Your task to perform on an android device: change the clock style Image 0: 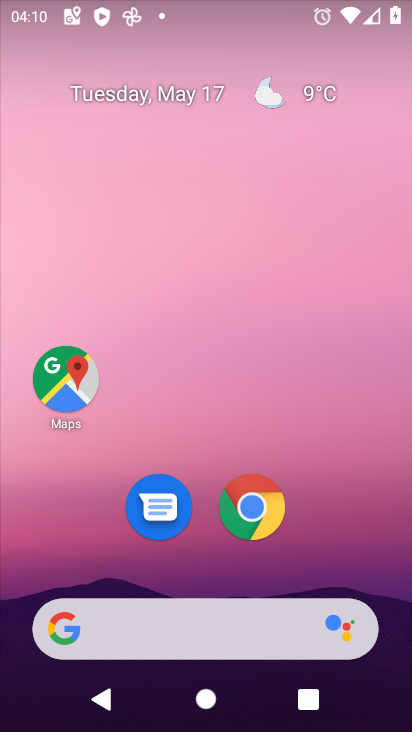
Step 0: drag from (329, 337) to (287, 66)
Your task to perform on an android device: change the clock style Image 1: 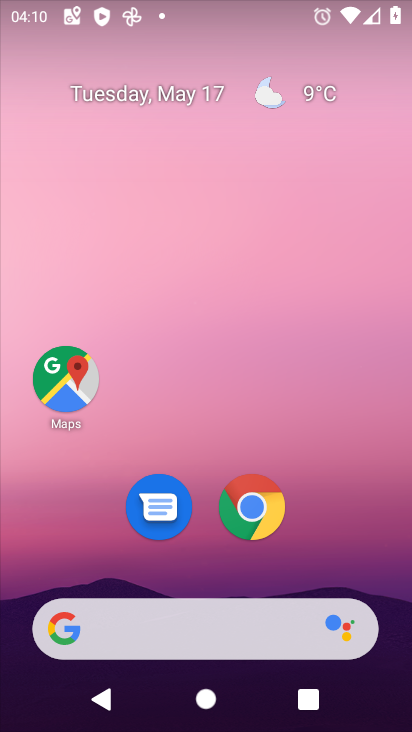
Step 1: drag from (367, 492) to (284, 0)
Your task to perform on an android device: change the clock style Image 2: 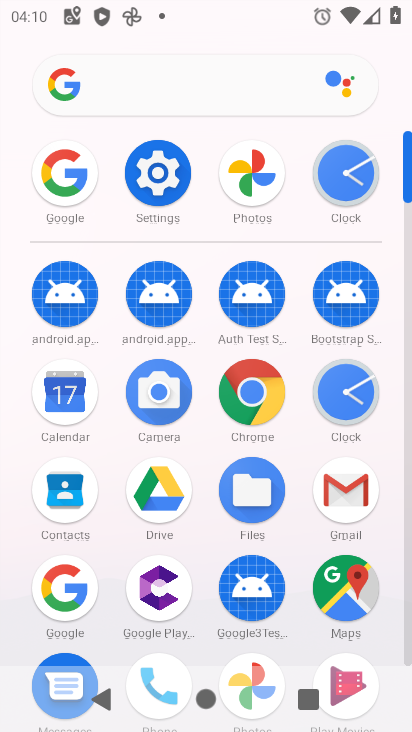
Step 2: click (340, 188)
Your task to perform on an android device: change the clock style Image 3: 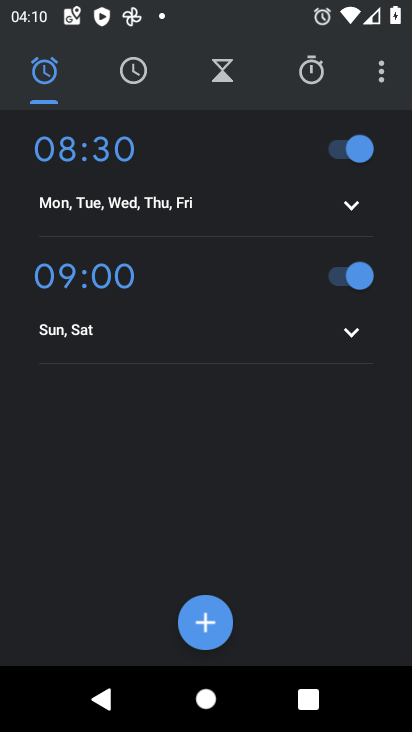
Step 3: click (384, 70)
Your task to perform on an android device: change the clock style Image 4: 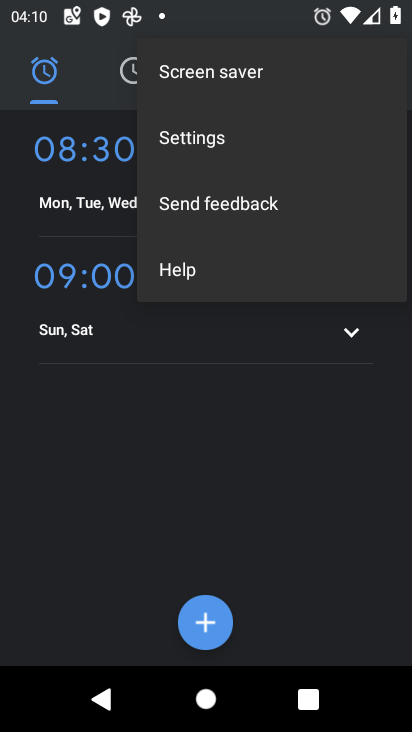
Step 4: click (251, 145)
Your task to perform on an android device: change the clock style Image 5: 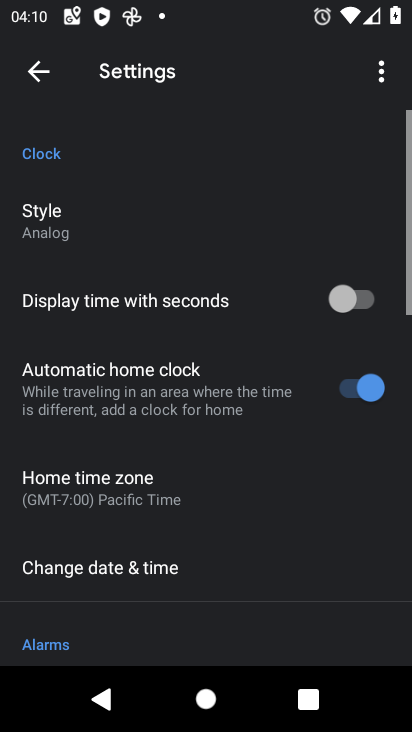
Step 5: click (89, 208)
Your task to perform on an android device: change the clock style Image 6: 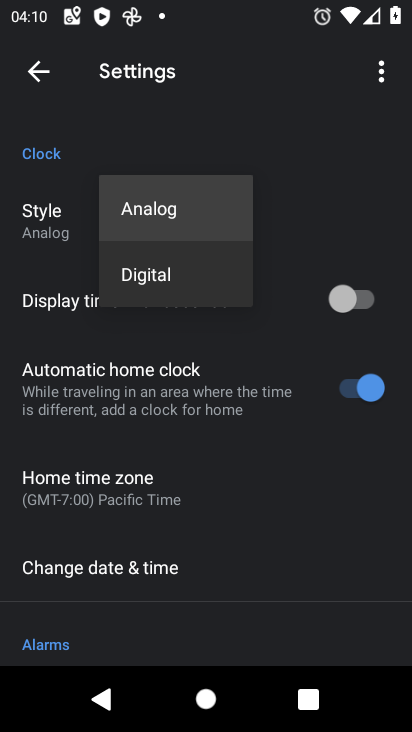
Step 6: click (143, 271)
Your task to perform on an android device: change the clock style Image 7: 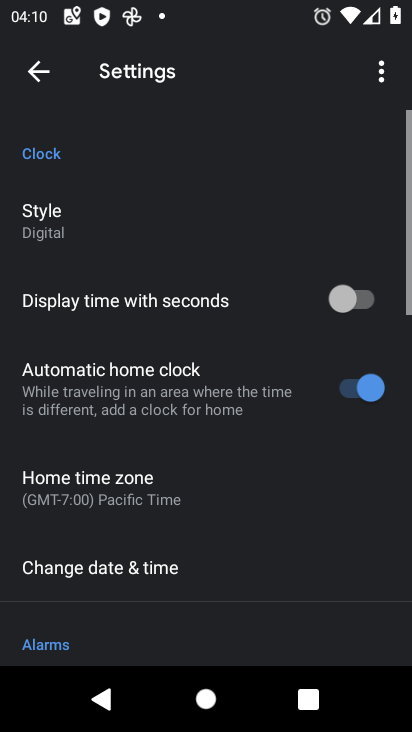
Step 7: task complete